Your task to perform on an android device: Open Wikipedia Image 0: 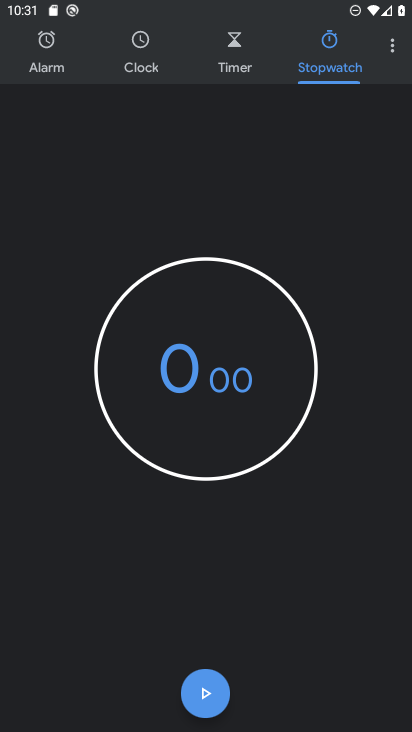
Step 0: press home button
Your task to perform on an android device: Open Wikipedia Image 1: 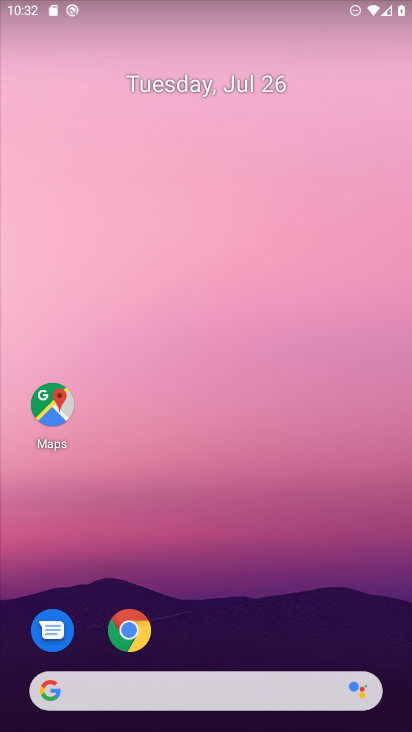
Step 1: click (131, 632)
Your task to perform on an android device: Open Wikipedia Image 2: 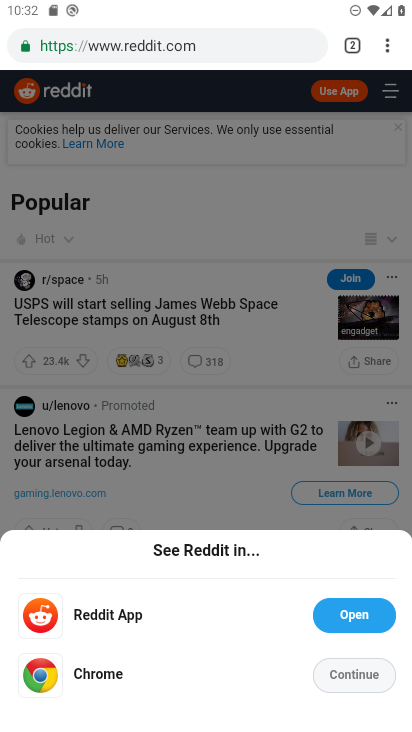
Step 2: click (228, 43)
Your task to perform on an android device: Open Wikipedia Image 3: 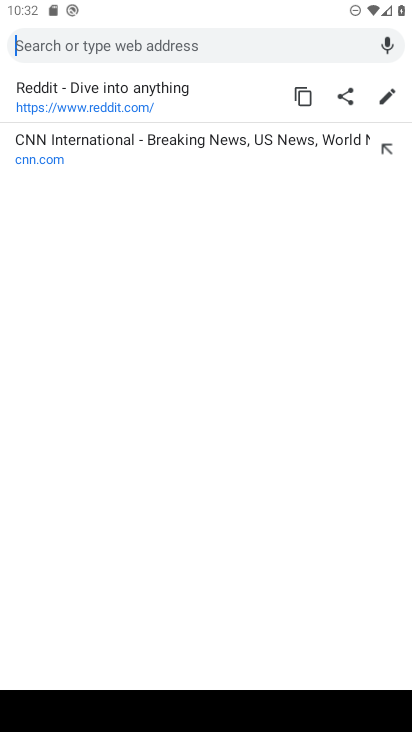
Step 3: type "wikipedia"
Your task to perform on an android device: Open Wikipedia Image 4: 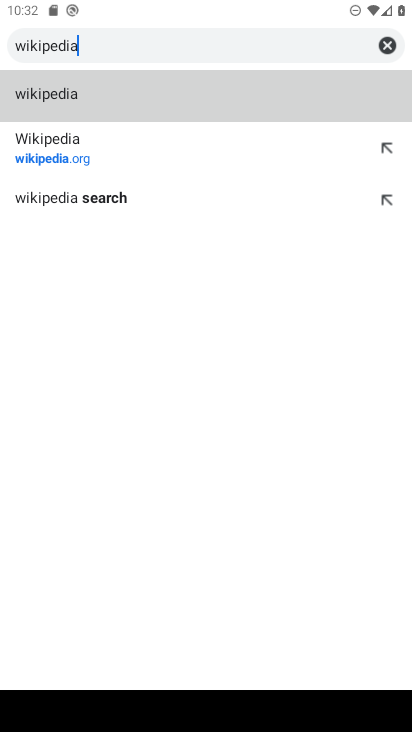
Step 4: click (60, 88)
Your task to perform on an android device: Open Wikipedia Image 5: 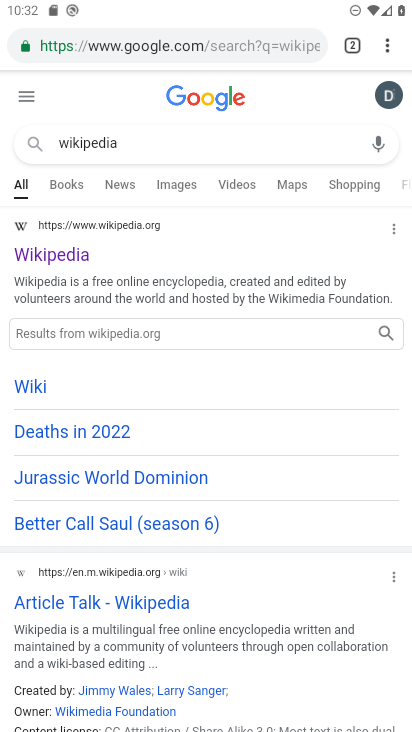
Step 5: click (63, 246)
Your task to perform on an android device: Open Wikipedia Image 6: 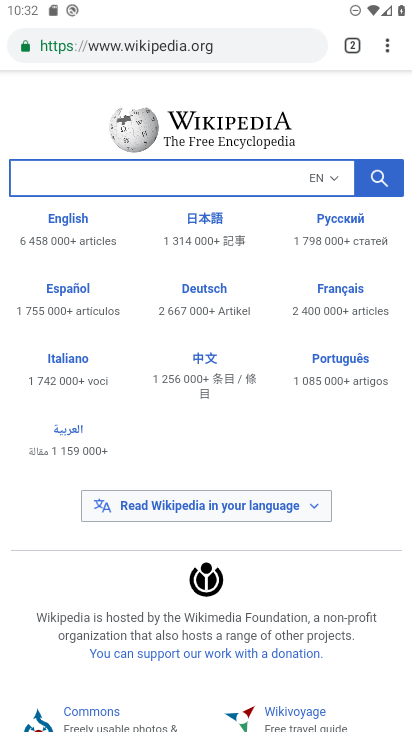
Step 6: task complete